Your task to perform on an android device: turn pop-ups off in chrome Image 0: 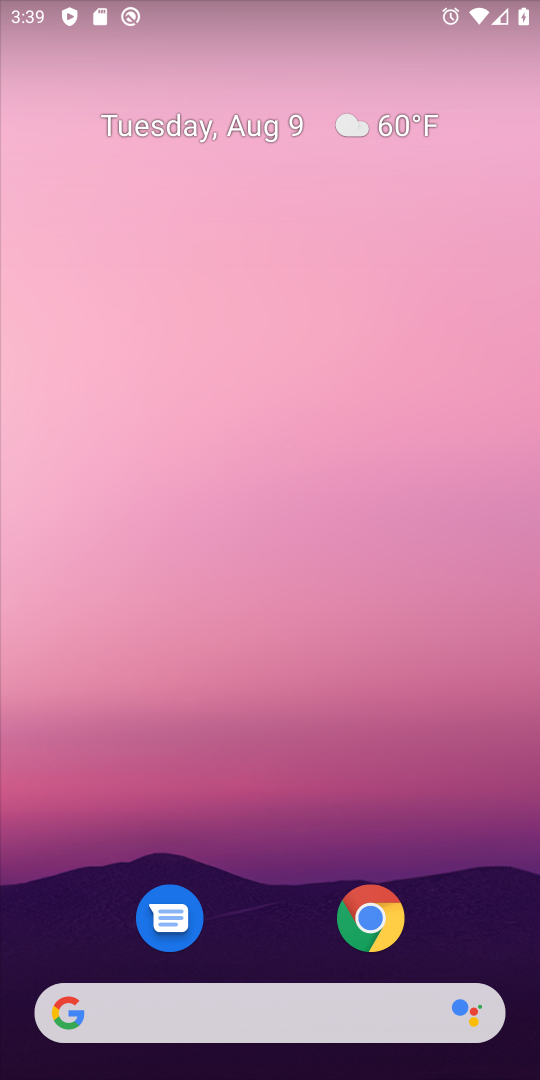
Step 0: click (357, 933)
Your task to perform on an android device: turn pop-ups off in chrome Image 1: 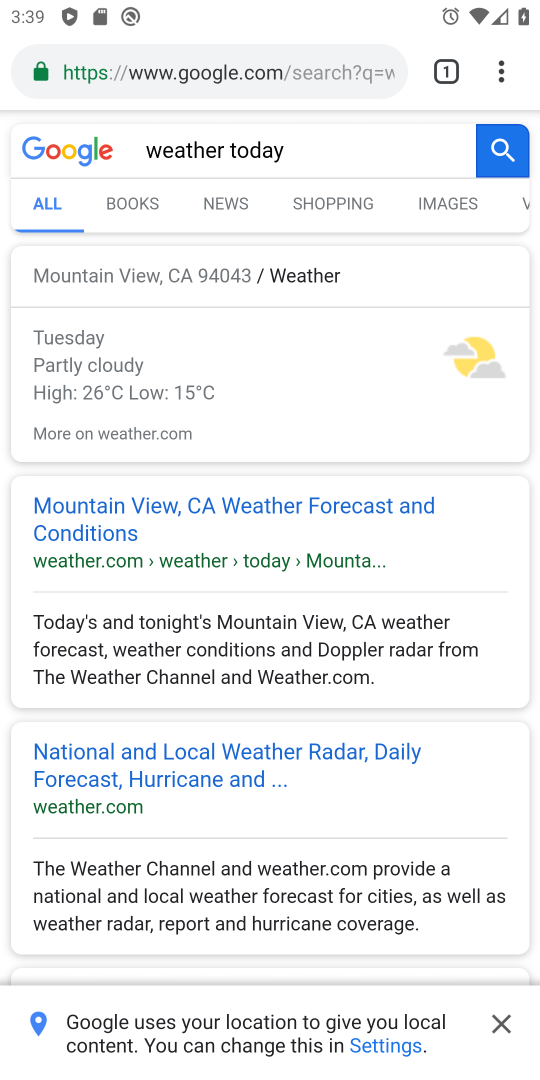
Step 1: drag from (496, 76) to (277, 859)
Your task to perform on an android device: turn pop-ups off in chrome Image 2: 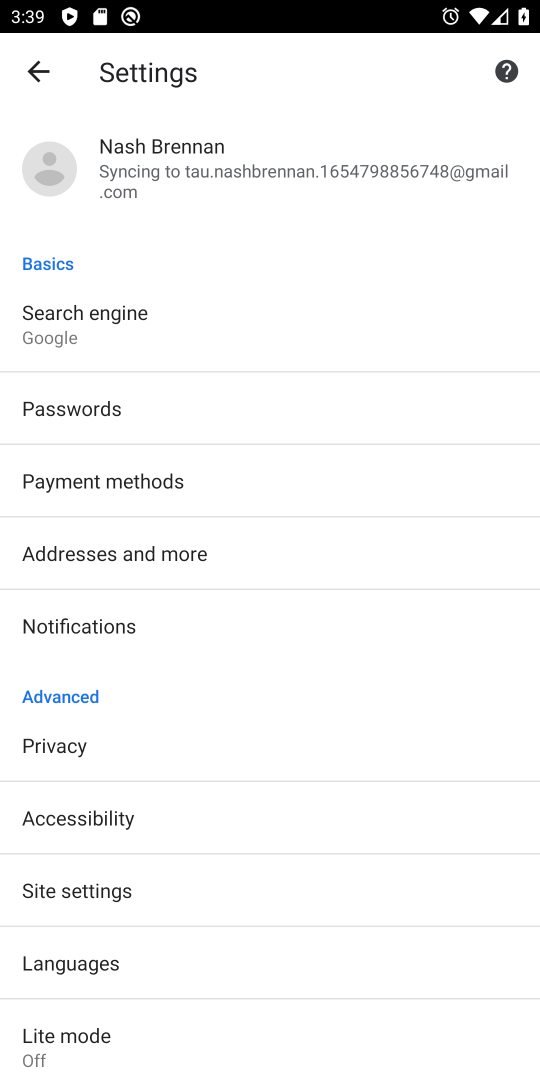
Step 2: click (122, 884)
Your task to perform on an android device: turn pop-ups off in chrome Image 3: 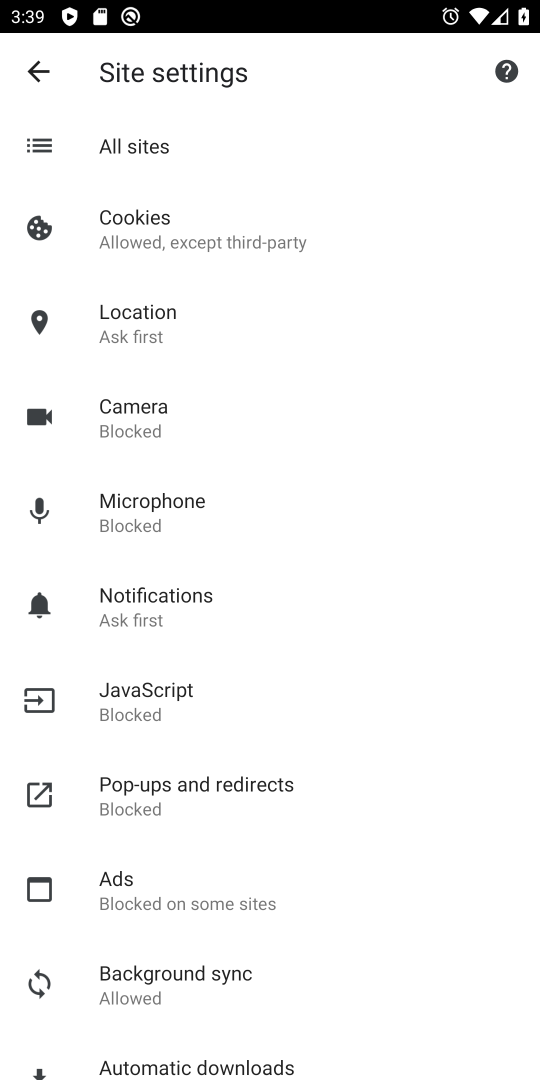
Step 3: click (226, 806)
Your task to perform on an android device: turn pop-ups off in chrome Image 4: 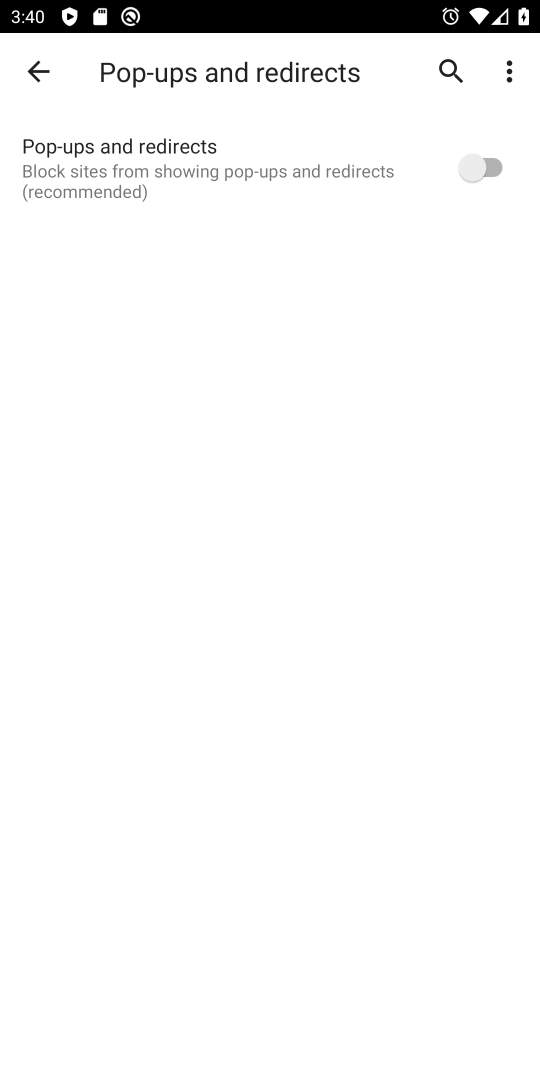
Step 4: task complete